Your task to perform on an android device: Open location settings Image 0: 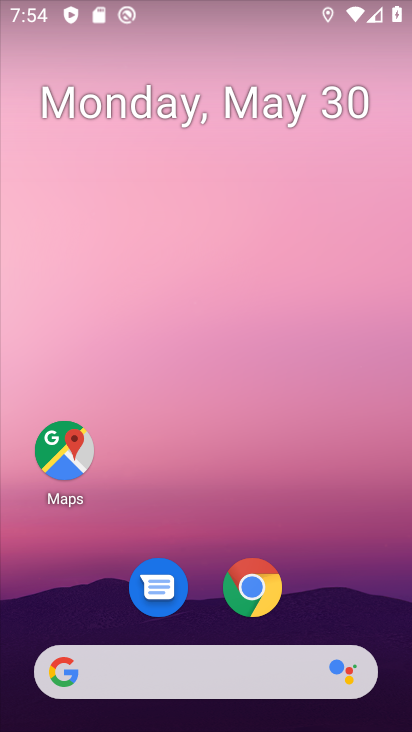
Step 0: press home button
Your task to perform on an android device: Open location settings Image 1: 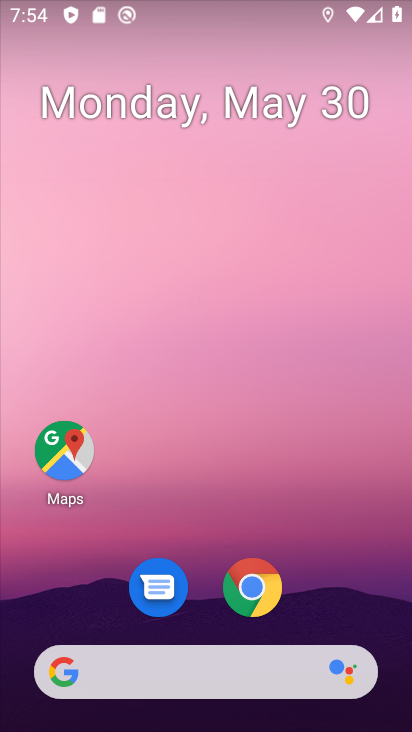
Step 1: drag from (187, 666) to (354, 100)
Your task to perform on an android device: Open location settings Image 2: 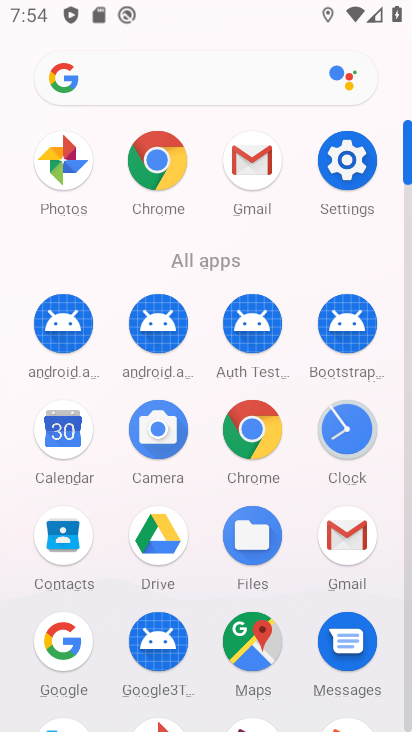
Step 2: click (350, 174)
Your task to perform on an android device: Open location settings Image 3: 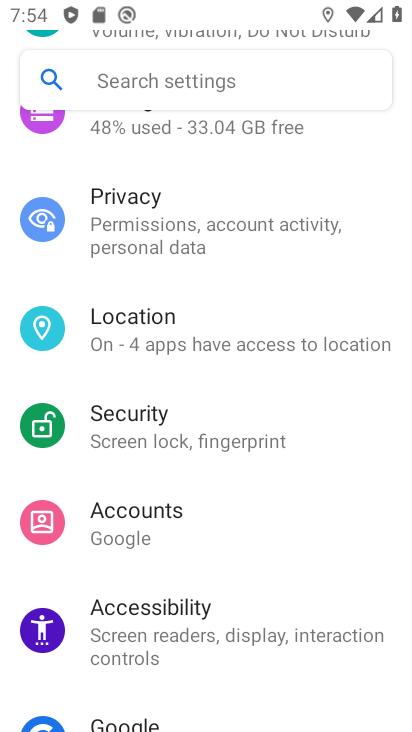
Step 3: click (151, 336)
Your task to perform on an android device: Open location settings Image 4: 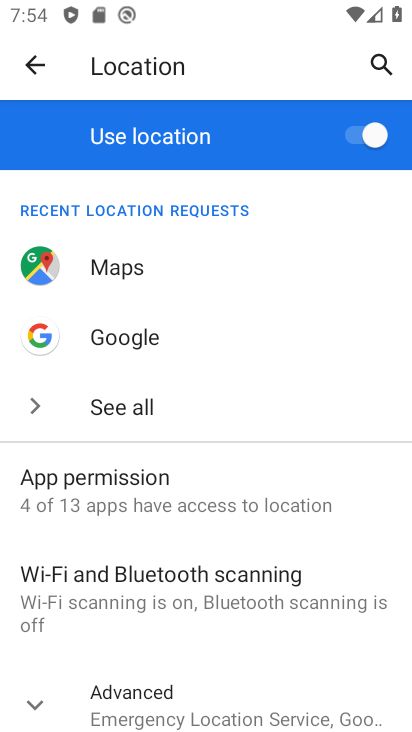
Step 4: task complete